Your task to perform on an android device: What's the weather? Image 0: 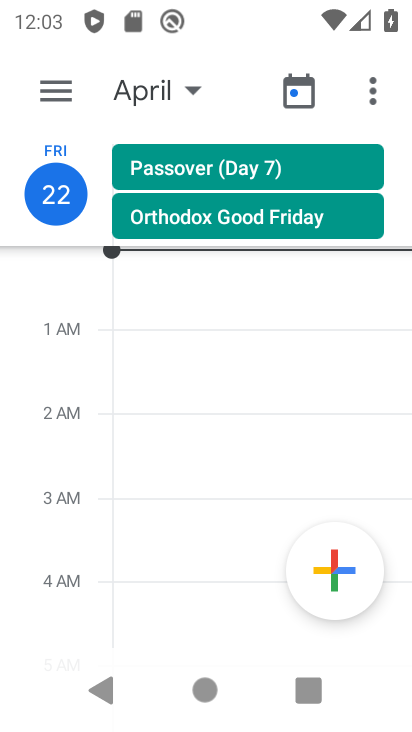
Step 0: press home button
Your task to perform on an android device: What's the weather? Image 1: 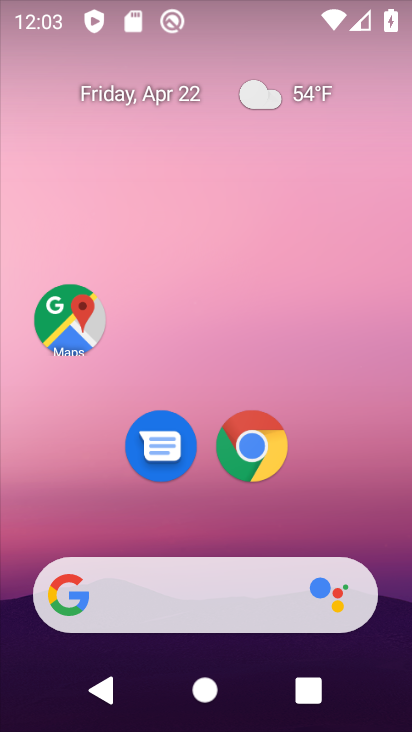
Step 1: click (257, 476)
Your task to perform on an android device: What's the weather? Image 2: 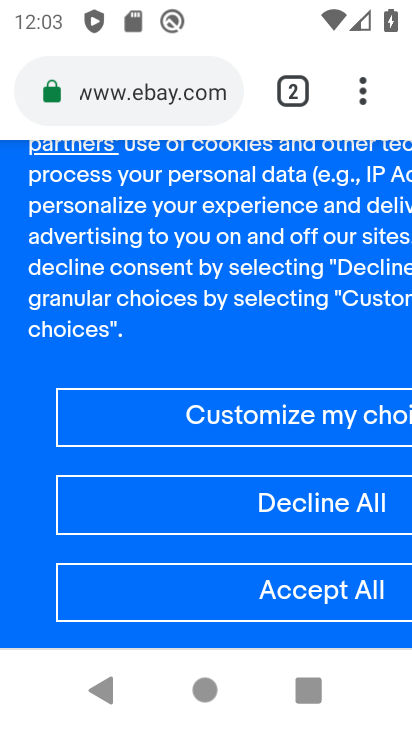
Step 2: click (158, 90)
Your task to perform on an android device: What's the weather? Image 3: 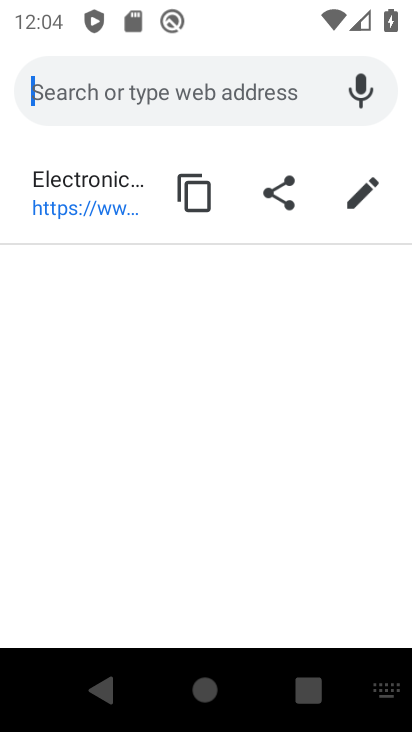
Step 3: type "What's the weather?"
Your task to perform on an android device: What's the weather? Image 4: 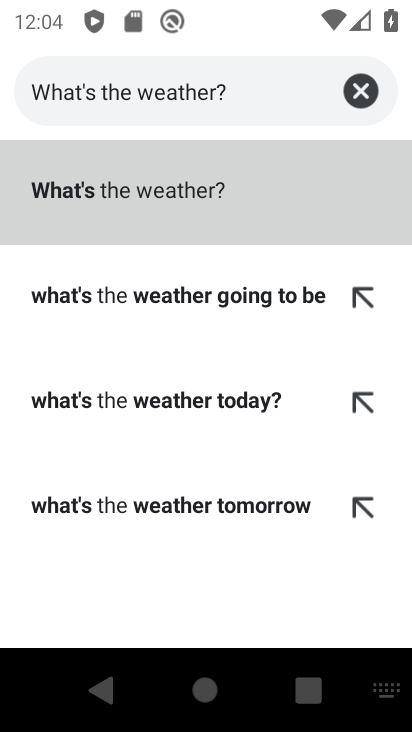
Step 4: click (173, 201)
Your task to perform on an android device: What's the weather? Image 5: 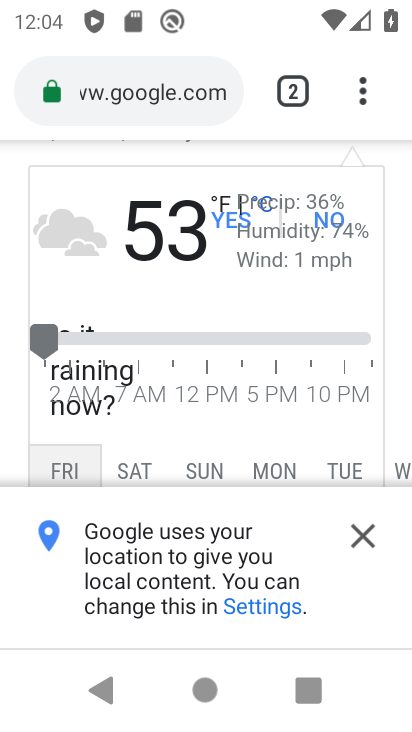
Step 5: click (355, 537)
Your task to perform on an android device: What's the weather? Image 6: 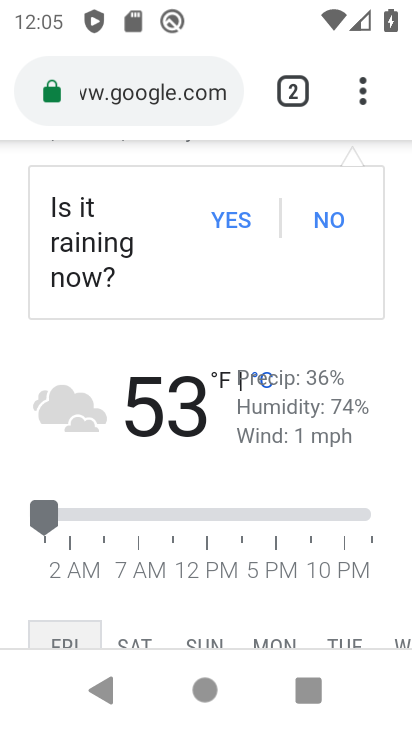
Step 6: task complete